Your task to perform on an android device: turn on priority inbox in the gmail app Image 0: 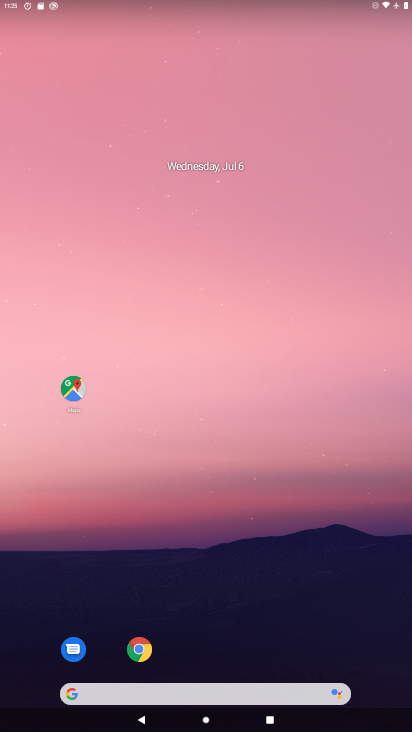
Step 0: drag from (370, 640) to (311, 118)
Your task to perform on an android device: turn on priority inbox in the gmail app Image 1: 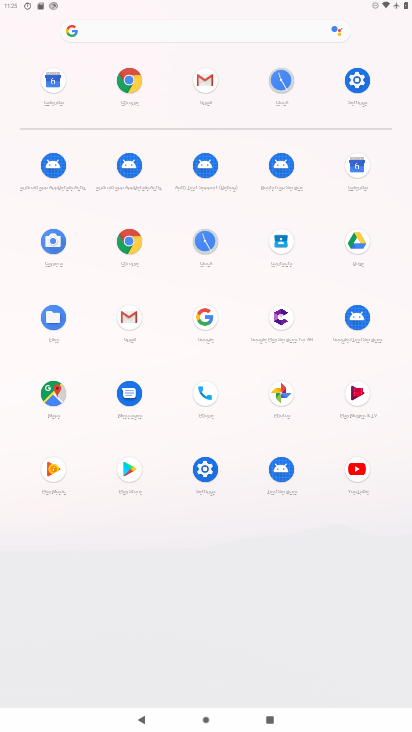
Step 1: click (120, 313)
Your task to perform on an android device: turn on priority inbox in the gmail app Image 2: 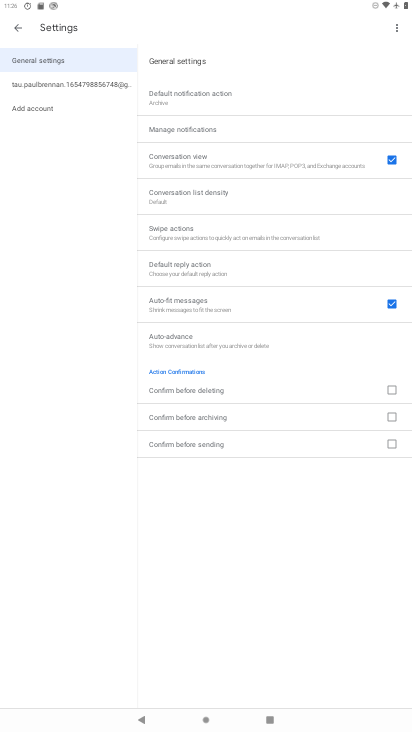
Step 2: click (56, 78)
Your task to perform on an android device: turn on priority inbox in the gmail app Image 3: 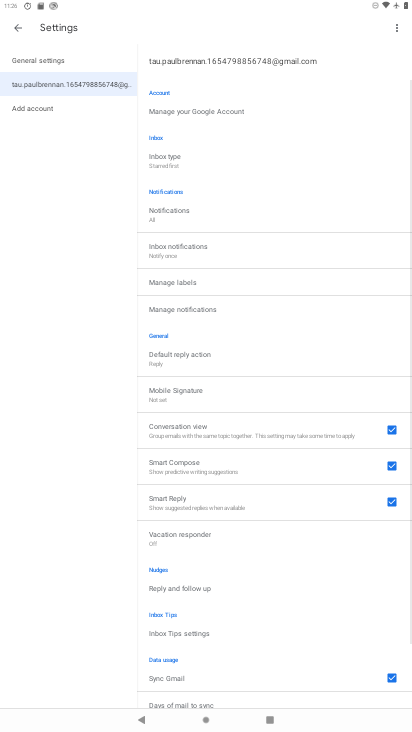
Step 3: click (186, 155)
Your task to perform on an android device: turn on priority inbox in the gmail app Image 4: 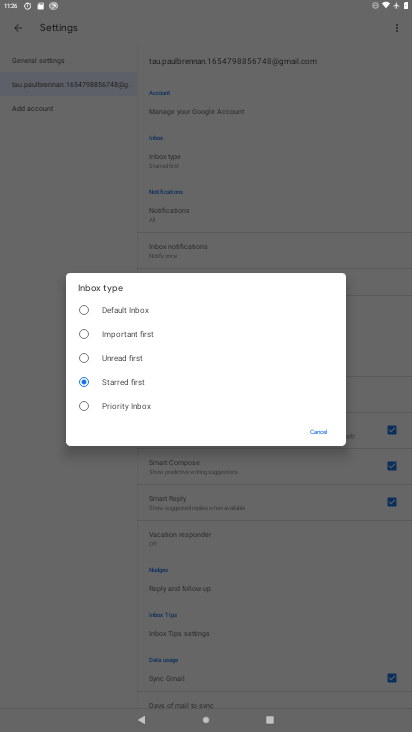
Step 4: click (80, 408)
Your task to perform on an android device: turn on priority inbox in the gmail app Image 5: 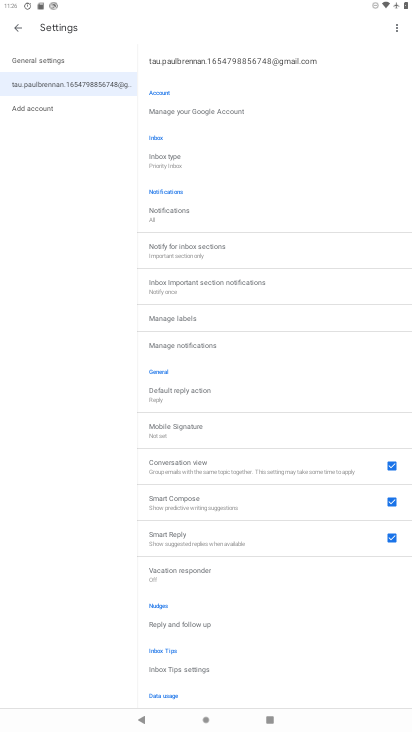
Step 5: task complete